Your task to perform on an android device: star an email in the gmail app Image 0: 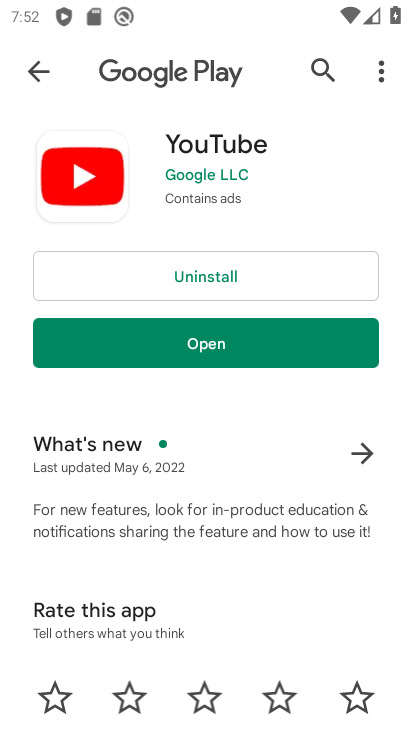
Step 0: click (66, 431)
Your task to perform on an android device: star an email in the gmail app Image 1: 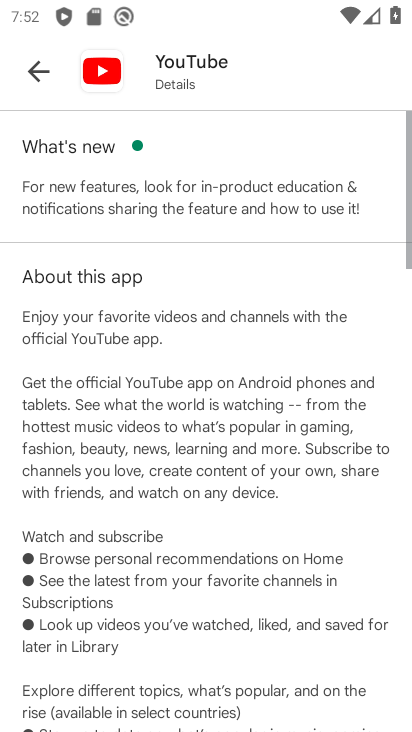
Step 1: press home button
Your task to perform on an android device: star an email in the gmail app Image 2: 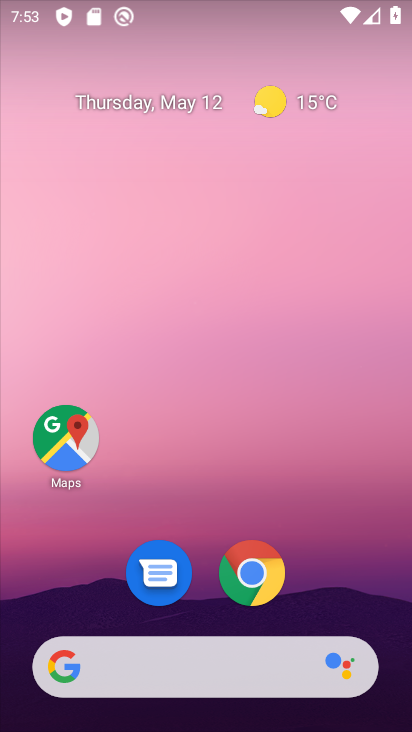
Step 2: drag from (310, 559) to (202, 107)
Your task to perform on an android device: star an email in the gmail app Image 3: 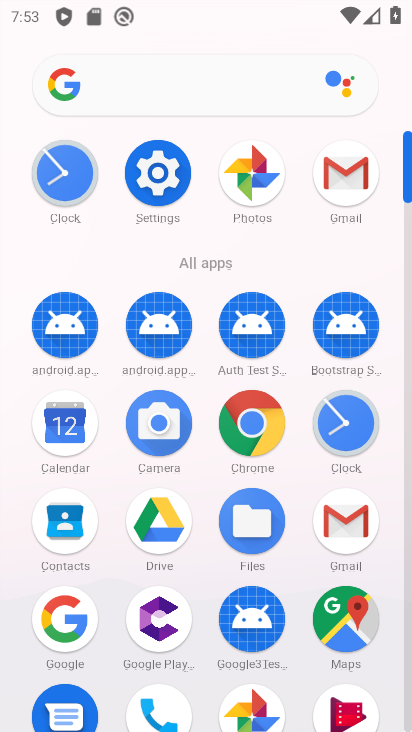
Step 3: click (340, 160)
Your task to perform on an android device: star an email in the gmail app Image 4: 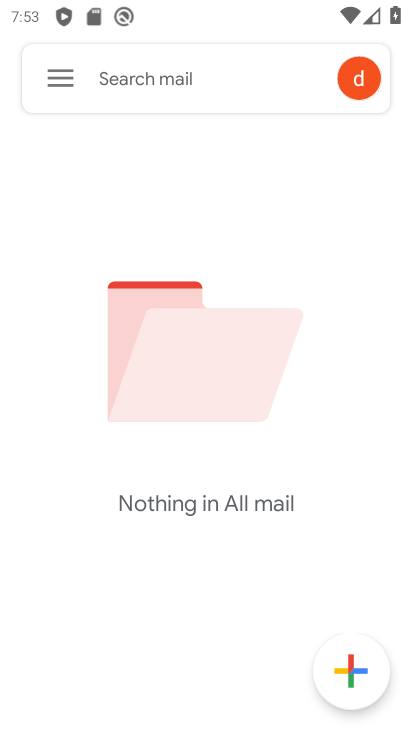
Step 4: click (54, 78)
Your task to perform on an android device: star an email in the gmail app Image 5: 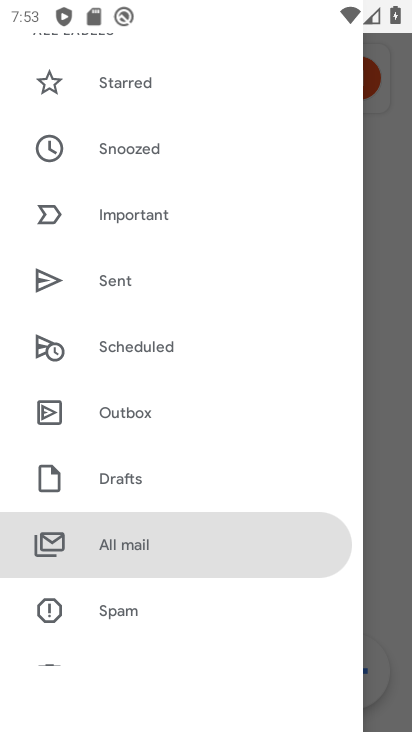
Step 5: click (159, 537)
Your task to perform on an android device: star an email in the gmail app Image 6: 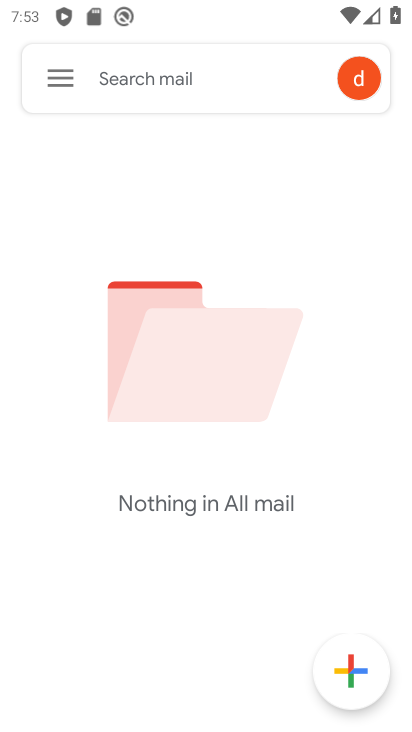
Step 6: task complete